Your task to perform on an android device: turn off translation in the chrome app Image 0: 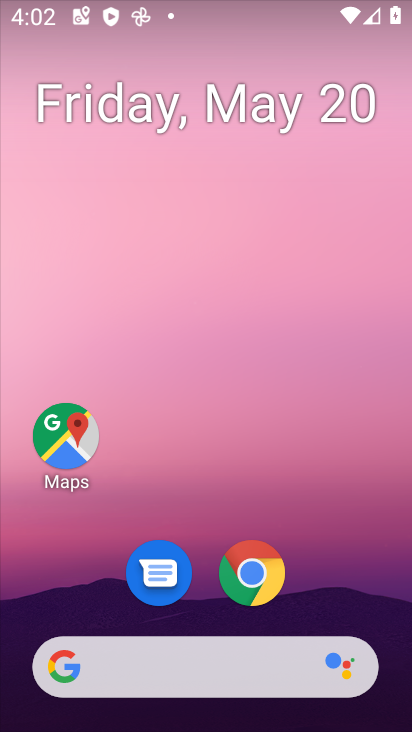
Step 0: click (257, 577)
Your task to perform on an android device: turn off translation in the chrome app Image 1: 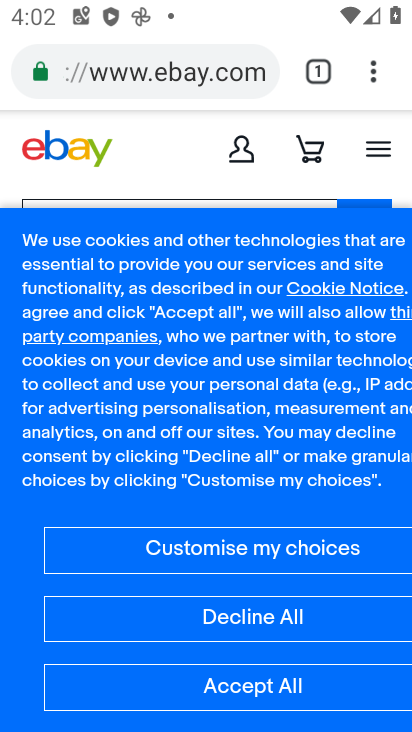
Step 1: click (370, 87)
Your task to perform on an android device: turn off translation in the chrome app Image 2: 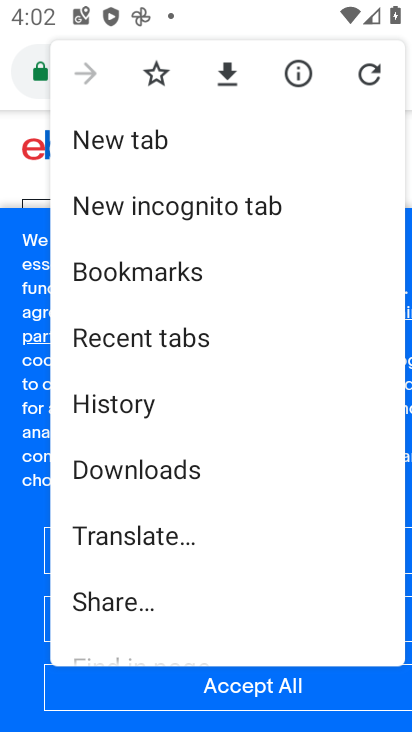
Step 2: drag from (239, 594) to (333, 151)
Your task to perform on an android device: turn off translation in the chrome app Image 3: 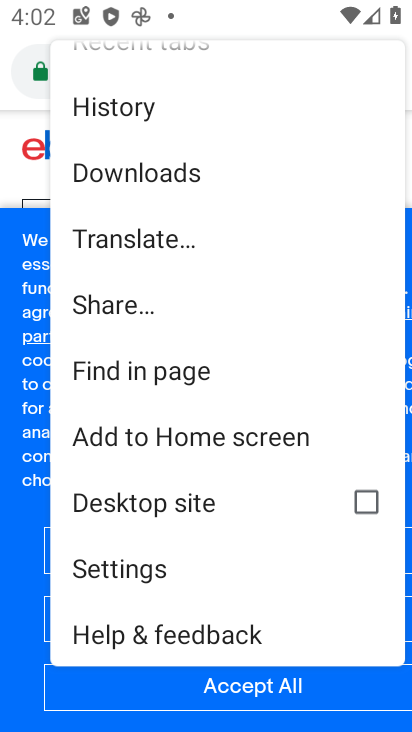
Step 3: click (103, 571)
Your task to perform on an android device: turn off translation in the chrome app Image 4: 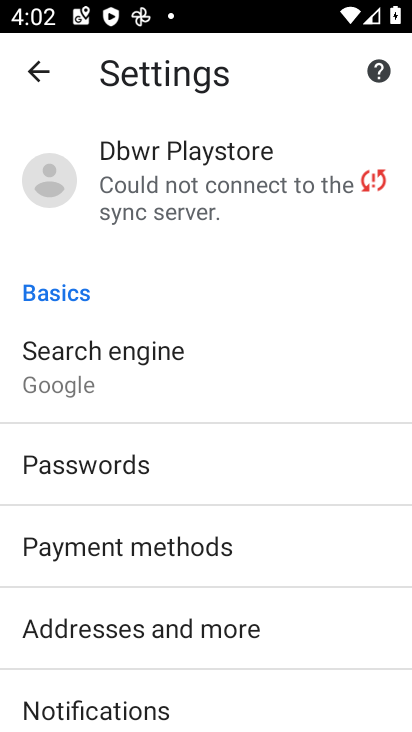
Step 4: click (279, 257)
Your task to perform on an android device: turn off translation in the chrome app Image 5: 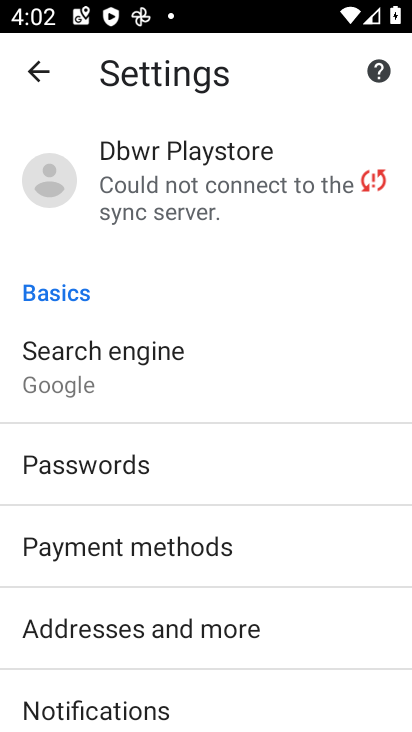
Step 5: drag from (270, 651) to (243, 263)
Your task to perform on an android device: turn off translation in the chrome app Image 6: 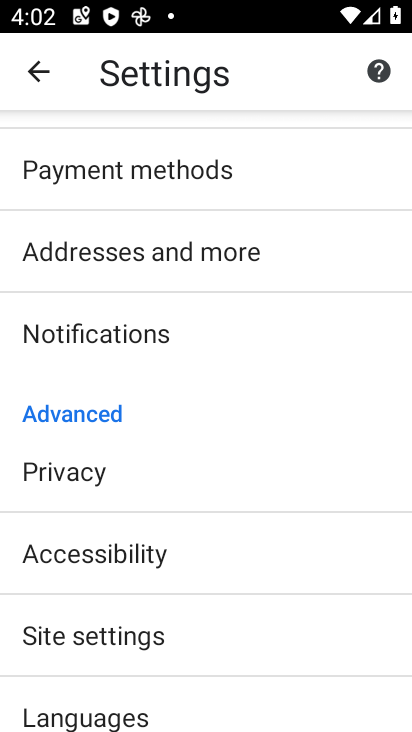
Step 6: drag from (177, 672) to (255, 316)
Your task to perform on an android device: turn off translation in the chrome app Image 7: 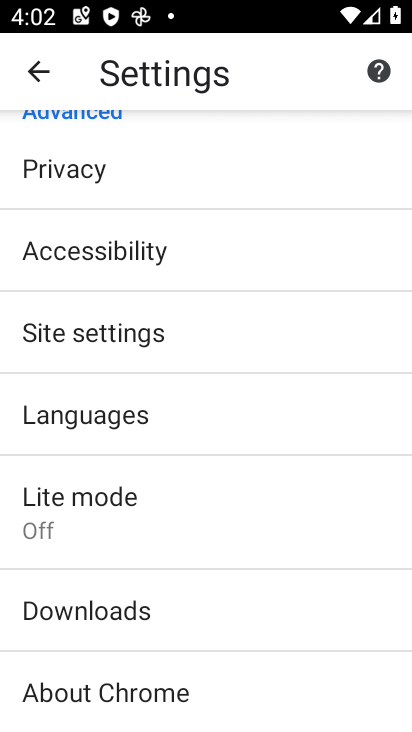
Step 7: click (91, 427)
Your task to perform on an android device: turn off translation in the chrome app Image 8: 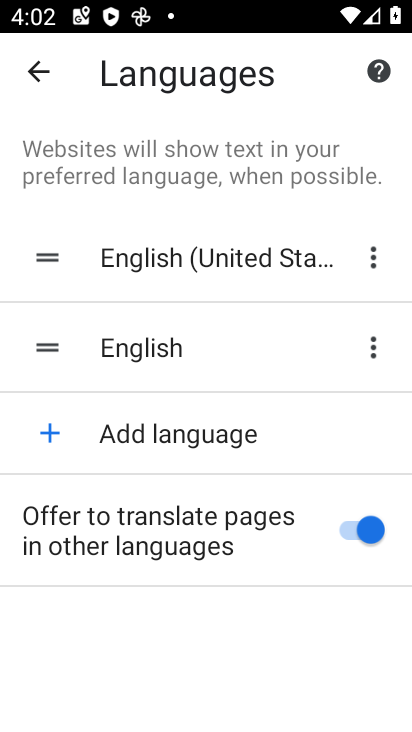
Step 8: click (341, 521)
Your task to perform on an android device: turn off translation in the chrome app Image 9: 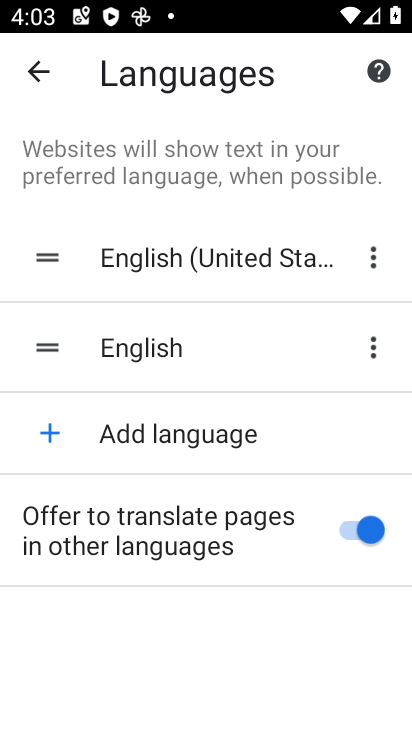
Step 9: click (341, 521)
Your task to perform on an android device: turn off translation in the chrome app Image 10: 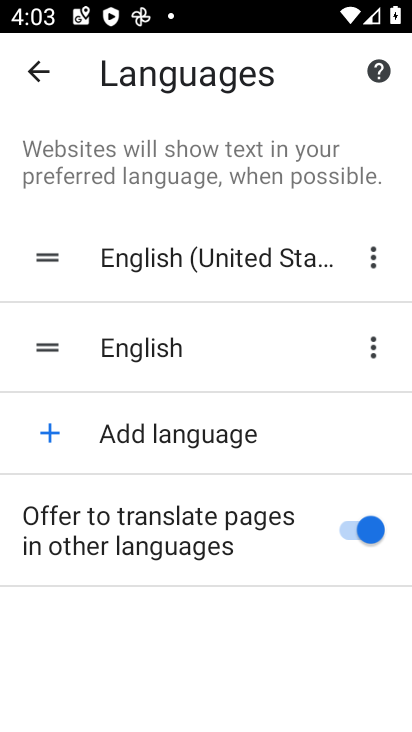
Step 10: task complete